Your task to perform on an android device: View the shopping cart on walmart. Add alienware area 51 to the cart on walmart, then select checkout. Image 0: 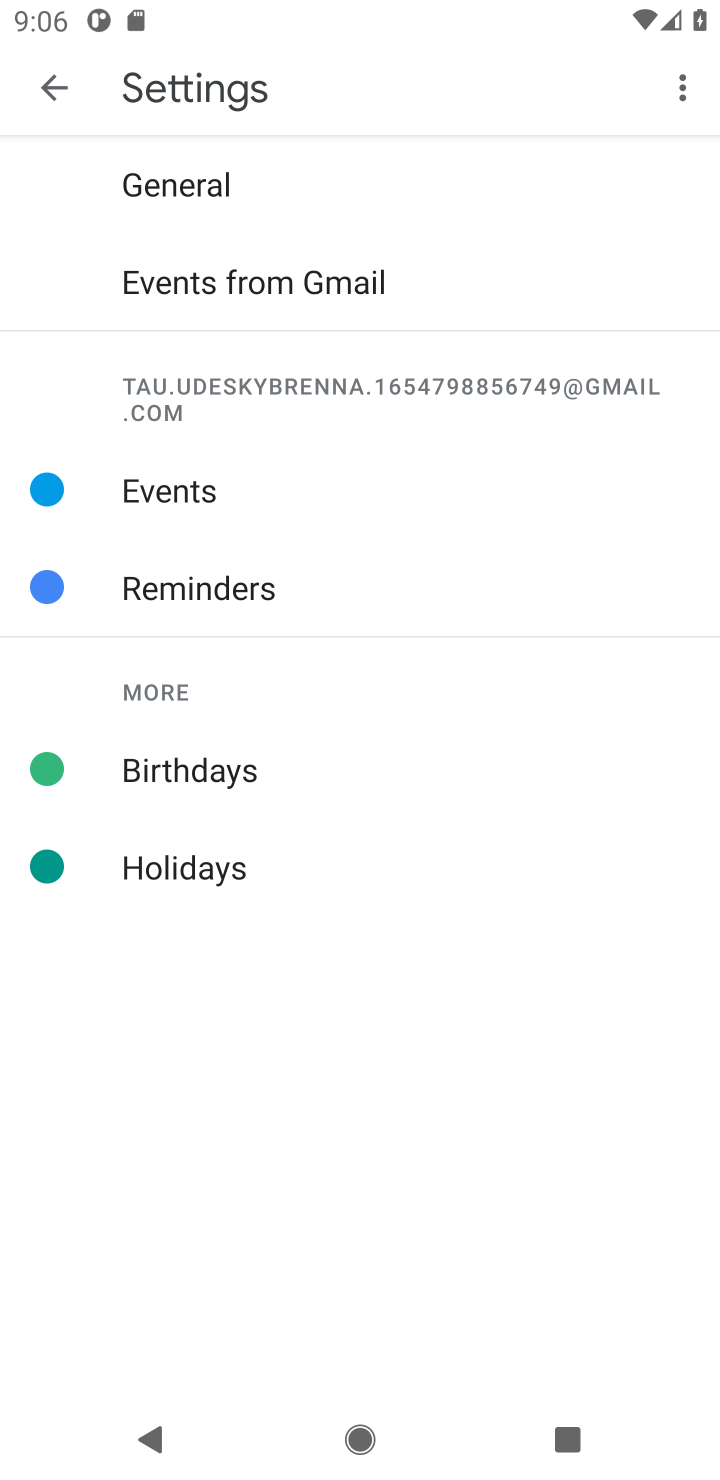
Step 0: press home button
Your task to perform on an android device: View the shopping cart on walmart. Add alienware area 51 to the cart on walmart, then select checkout. Image 1: 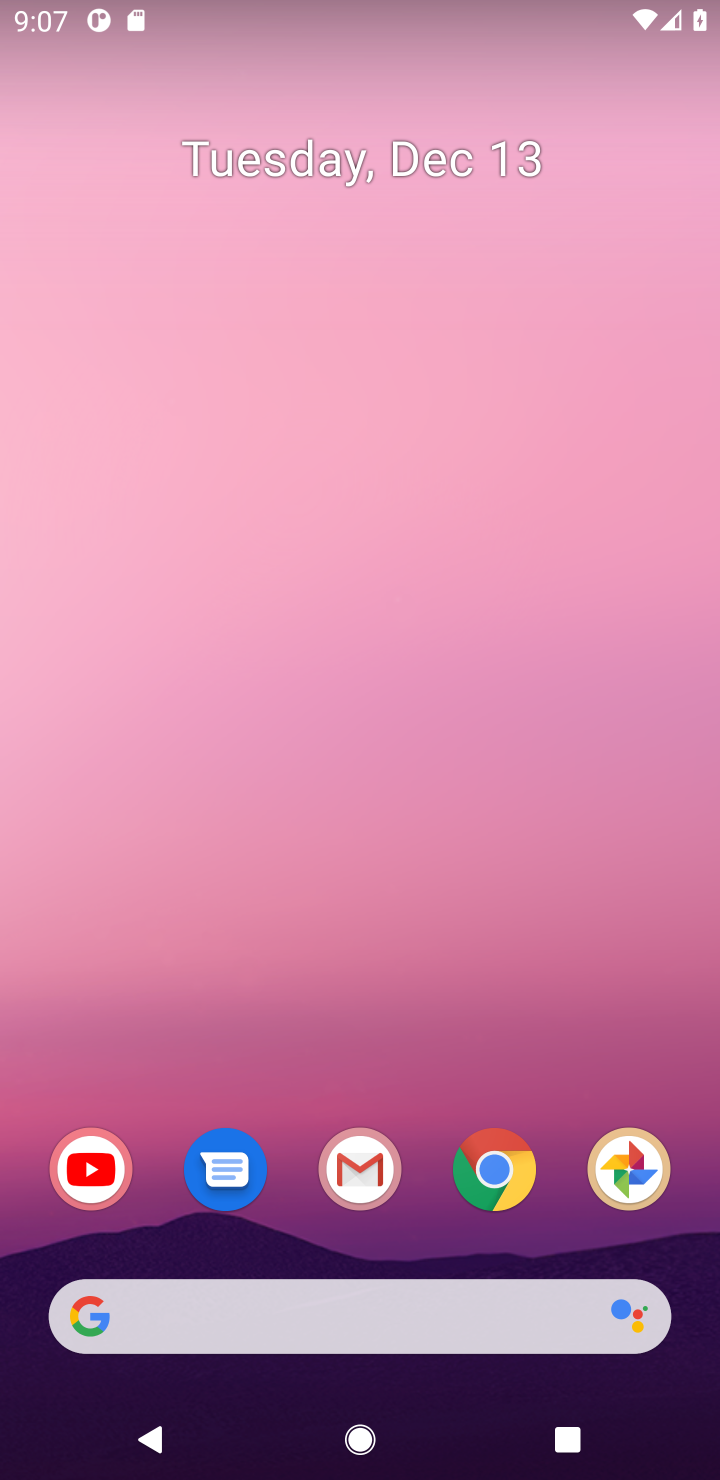
Step 1: click (496, 1211)
Your task to perform on an android device: View the shopping cart on walmart. Add alienware area 51 to the cart on walmart, then select checkout. Image 2: 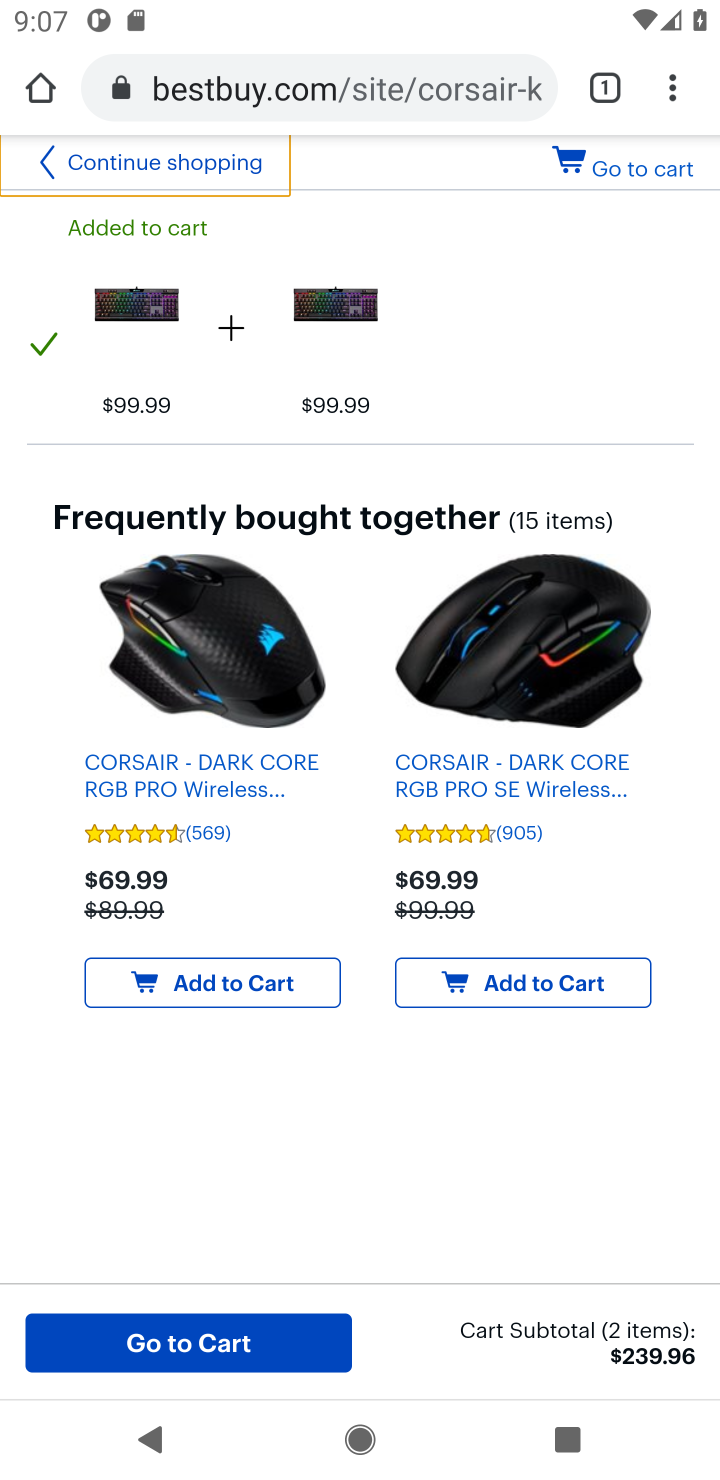
Step 2: click (290, 763)
Your task to perform on an android device: View the shopping cart on walmart. Add alienware area 51 to the cart on walmart, then select checkout. Image 3: 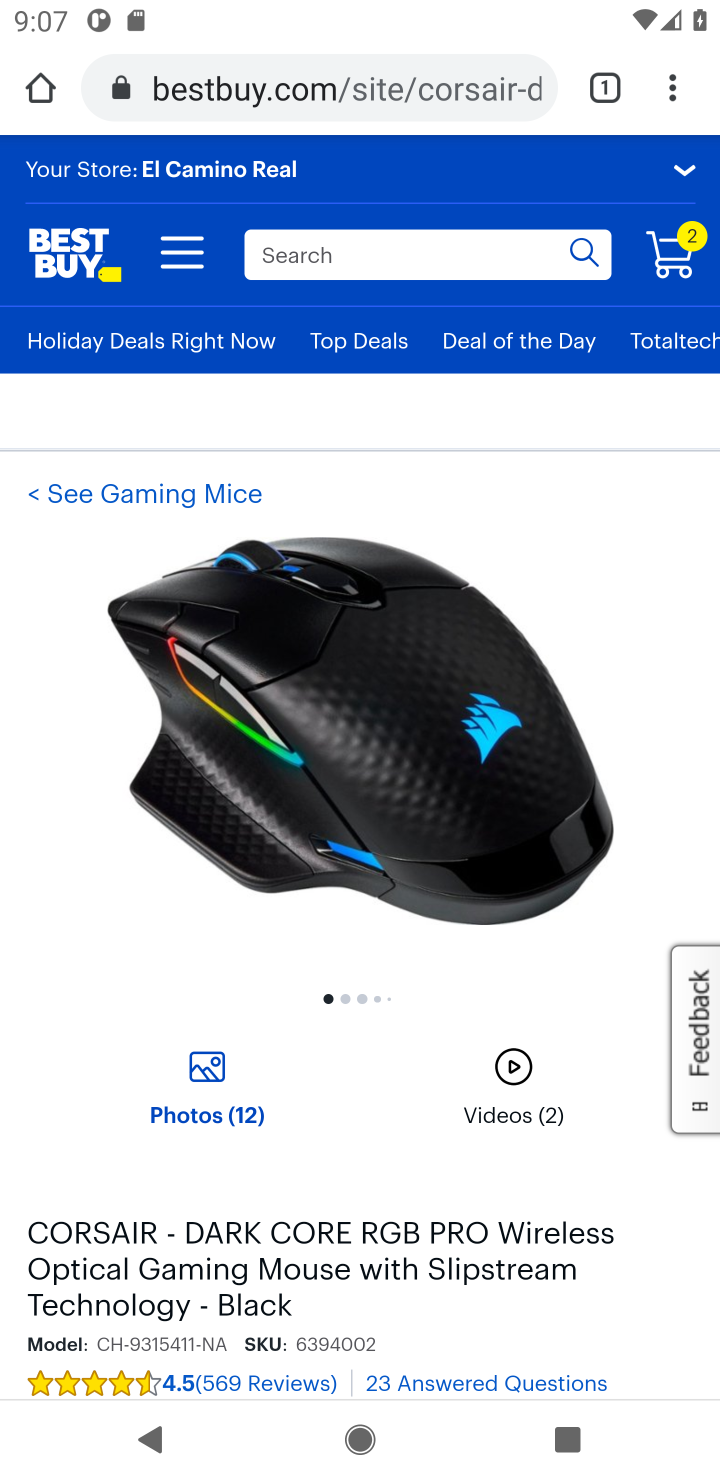
Step 3: task complete